Your task to perform on an android device: Open calendar and show me the third week of next month Image 0: 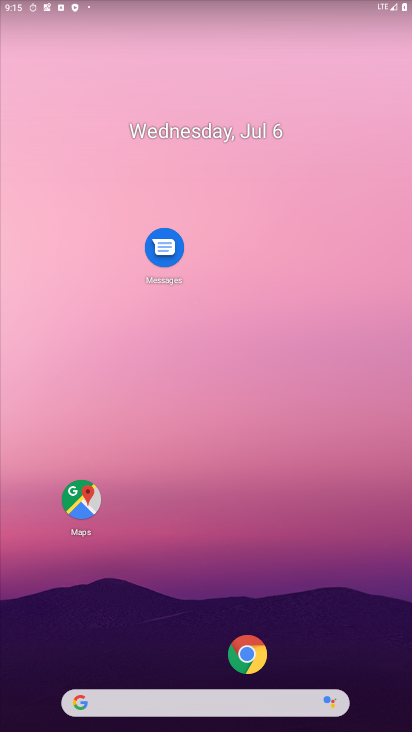
Step 0: click (211, 126)
Your task to perform on an android device: Open calendar and show me the third week of next month Image 1: 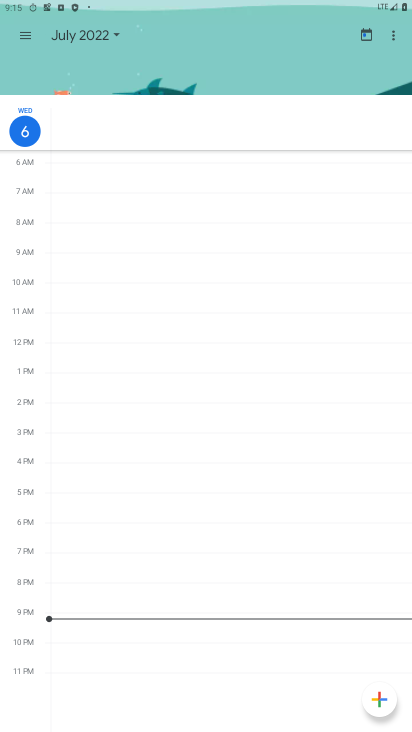
Step 1: click (103, 33)
Your task to perform on an android device: Open calendar and show me the third week of next month Image 2: 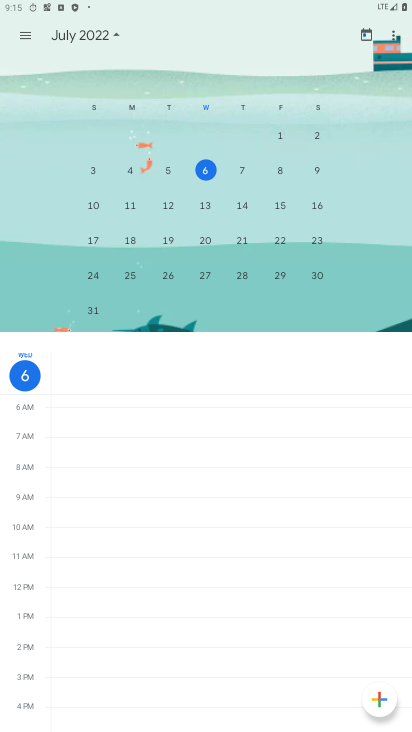
Step 2: drag from (373, 310) to (48, 285)
Your task to perform on an android device: Open calendar and show me the third week of next month Image 3: 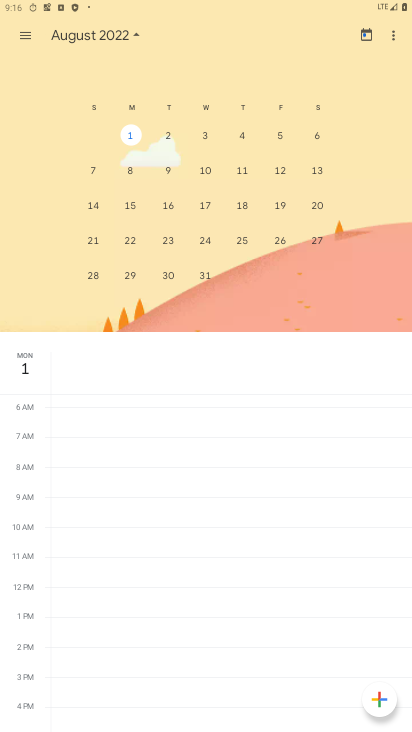
Step 3: click (171, 210)
Your task to perform on an android device: Open calendar and show me the third week of next month Image 4: 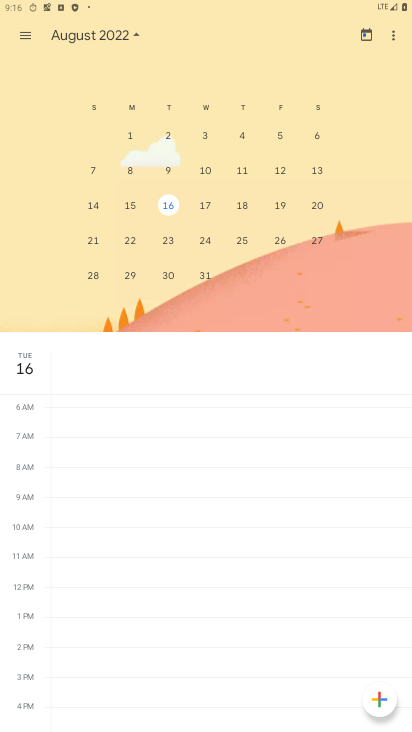
Step 4: task complete